Your task to perform on an android device: empty trash in google photos Image 0: 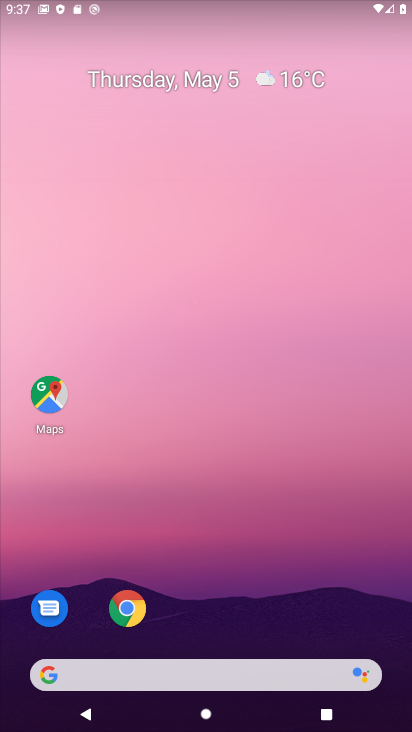
Step 0: drag from (300, 607) to (228, 103)
Your task to perform on an android device: empty trash in google photos Image 1: 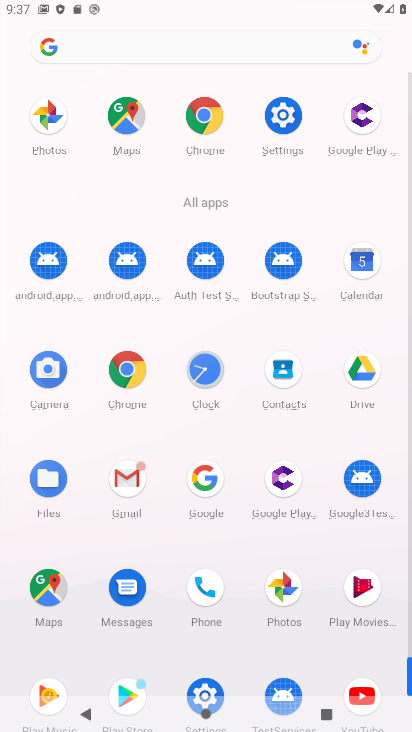
Step 1: click (292, 580)
Your task to perform on an android device: empty trash in google photos Image 2: 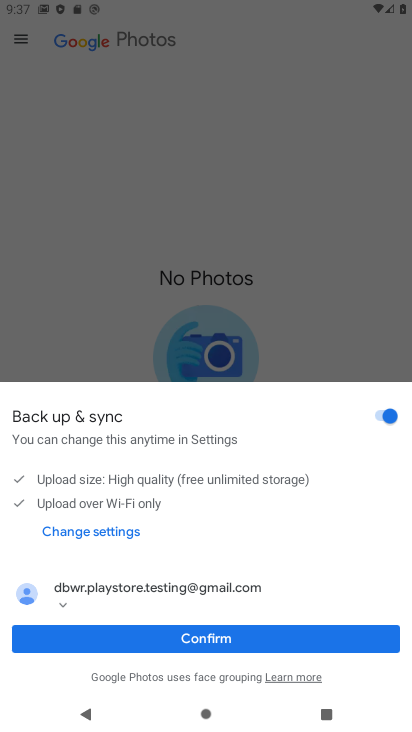
Step 2: click (206, 642)
Your task to perform on an android device: empty trash in google photos Image 3: 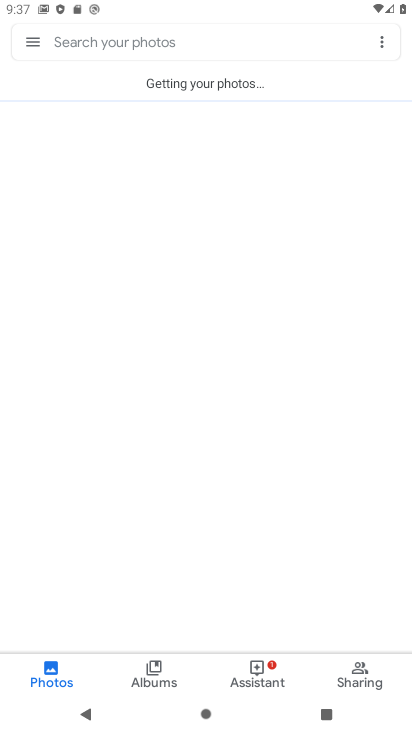
Step 3: click (33, 34)
Your task to perform on an android device: empty trash in google photos Image 4: 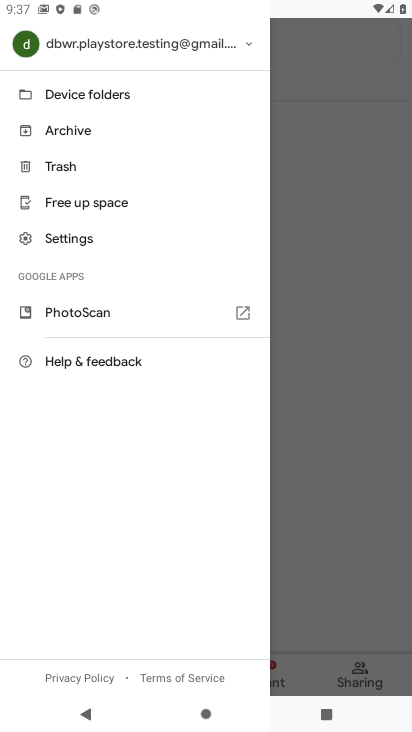
Step 4: click (60, 158)
Your task to perform on an android device: empty trash in google photos Image 5: 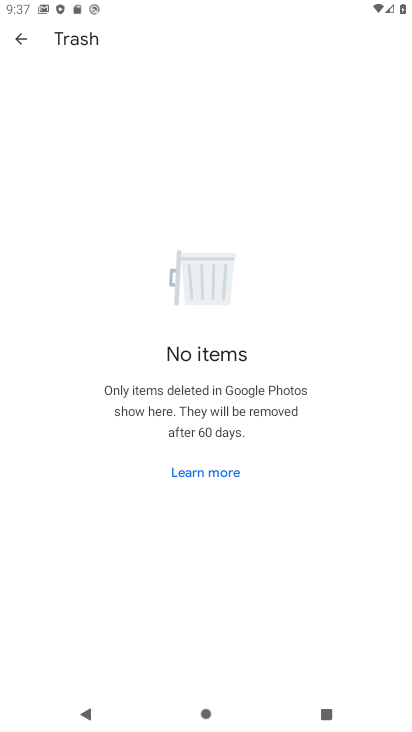
Step 5: task complete